Your task to perform on an android device: allow cookies in the chrome app Image 0: 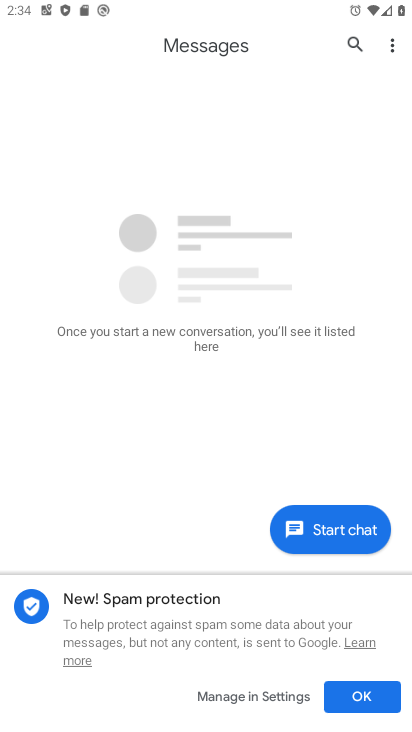
Step 0: press home button
Your task to perform on an android device: allow cookies in the chrome app Image 1: 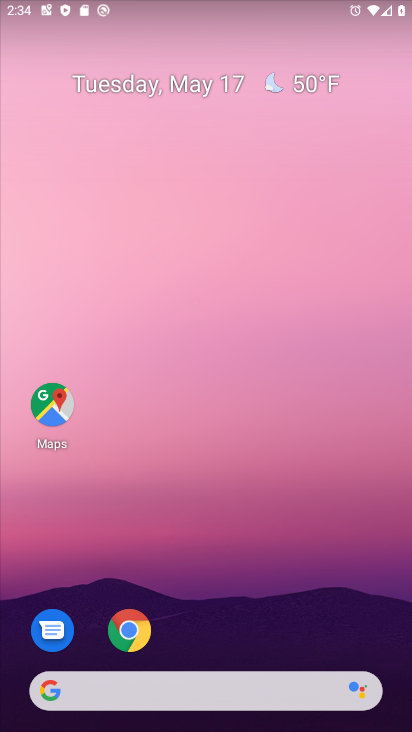
Step 1: click (121, 631)
Your task to perform on an android device: allow cookies in the chrome app Image 2: 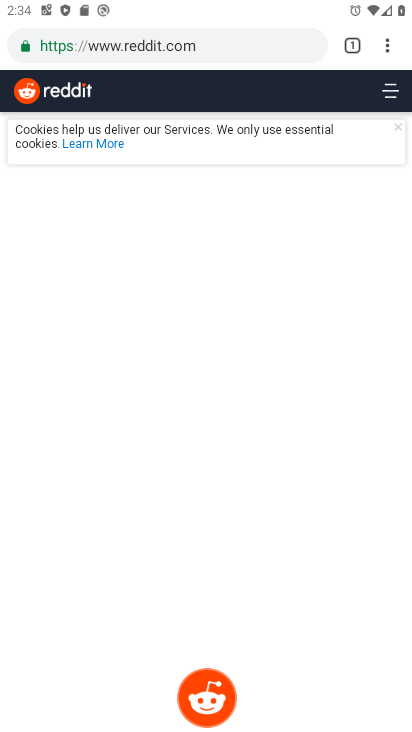
Step 2: click (386, 42)
Your task to perform on an android device: allow cookies in the chrome app Image 3: 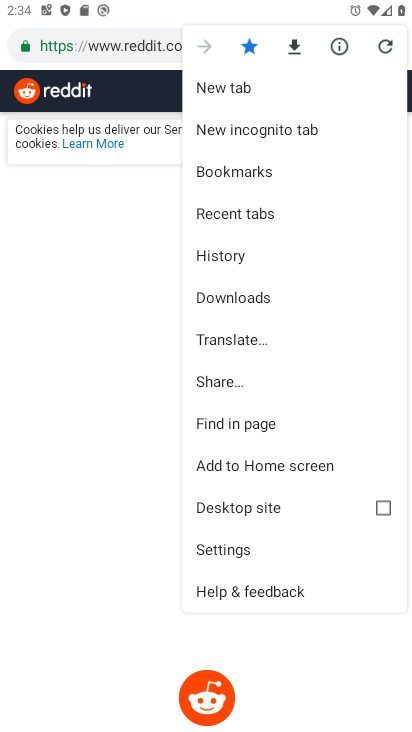
Step 3: click (224, 551)
Your task to perform on an android device: allow cookies in the chrome app Image 4: 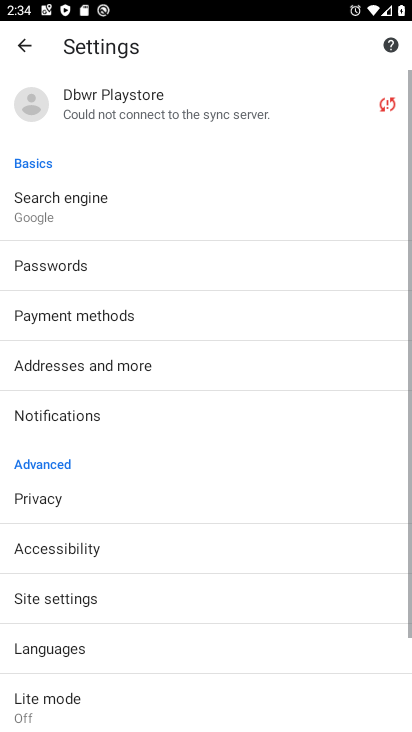
Step 4: click (59, 608)
Your task to perform on an android device: allow cookies in the chrome app Image 5: 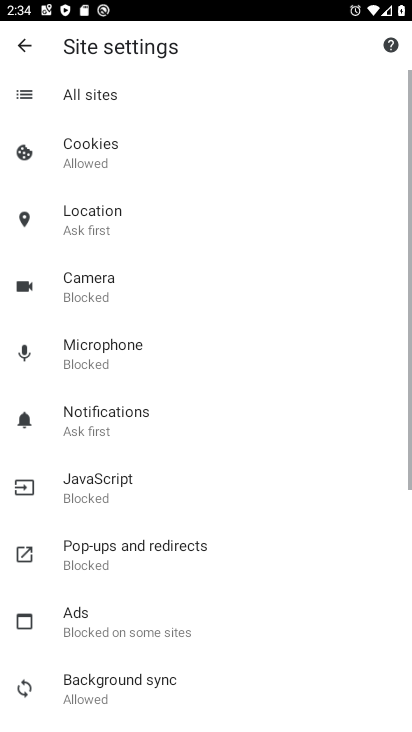
Step 5: click (117, 134)
Your task to perform on an android device: allow cookies in the chrome app Image 6: 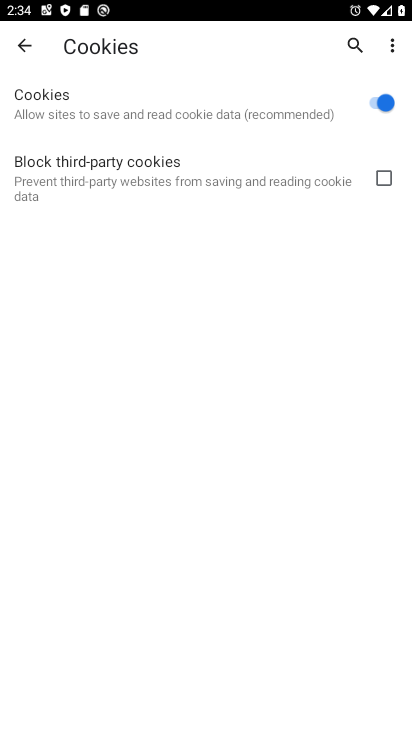
Step 6: task complete